Your task to perform on an android device: check battery use Image 0: 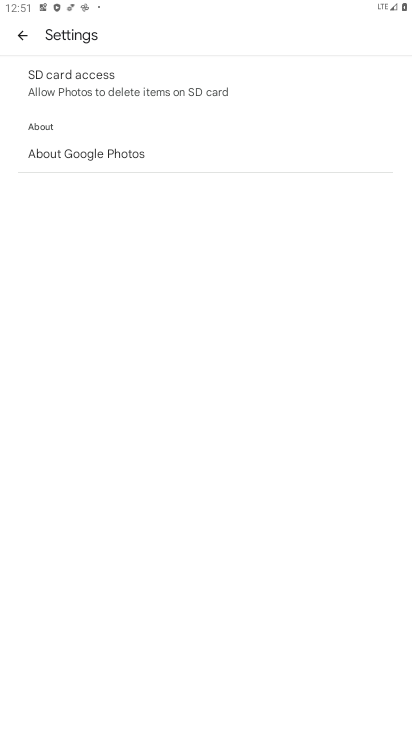
Step 0: press home button
Your task to perform on an android device: check battery use Image 1: 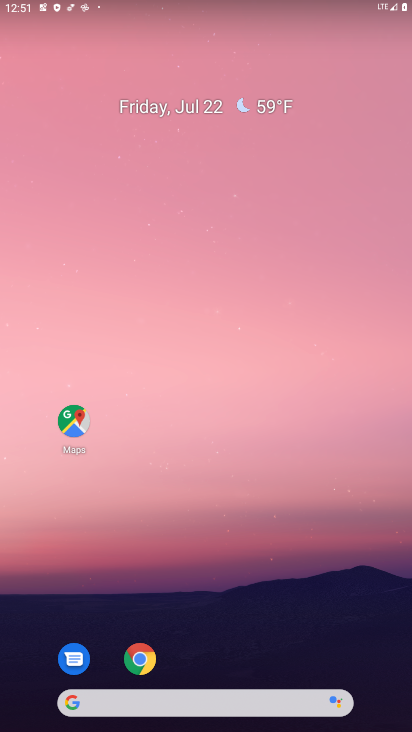
Step 1: drag from (243, 714) to (305, 18)
Your task to perform on an android device: check battery use Image 2: 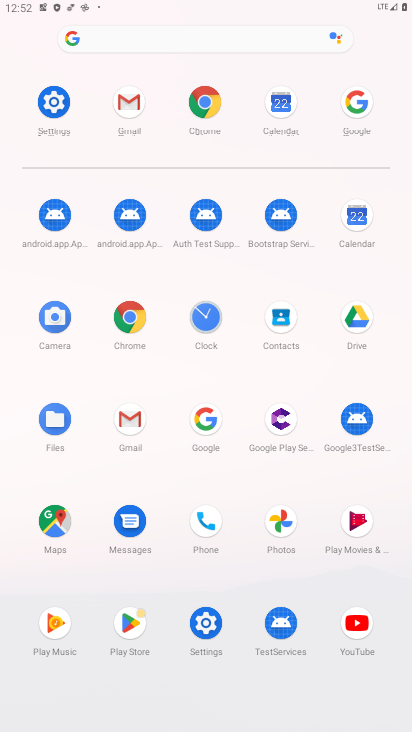
Step 2: click (56, 94)
Your task to perform on an android device: check battery use Image 3: 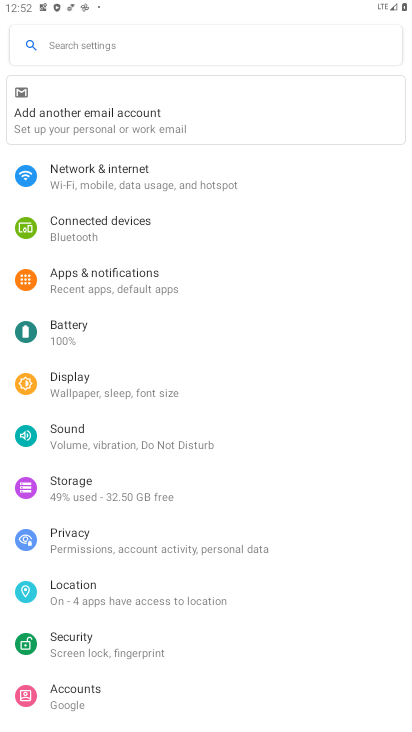
Step 3: click (69, 338)
Your task to perform on an android device: check battery use Image 4: 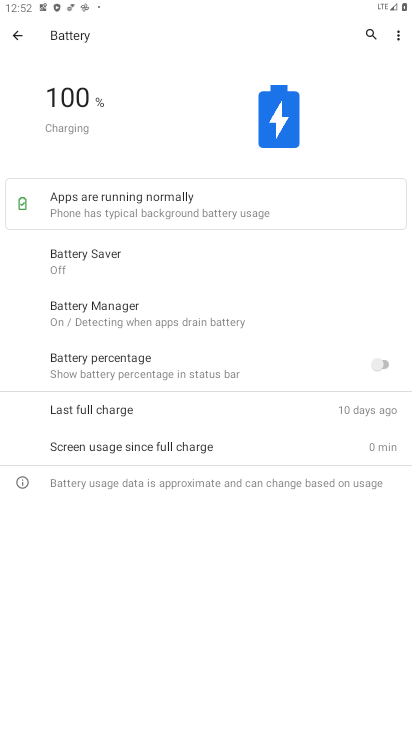
Step 4: task complete